Your task to perform on an android device: Open maps Image 0: 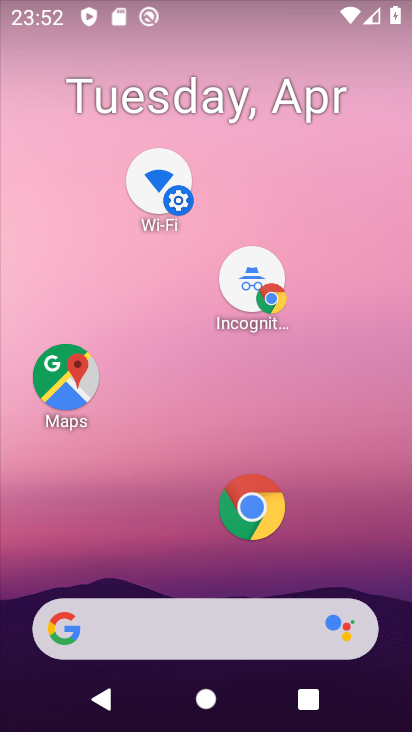
Step 0: click (57, 375)
Your task to perform on an android device: Open maps Image 1: 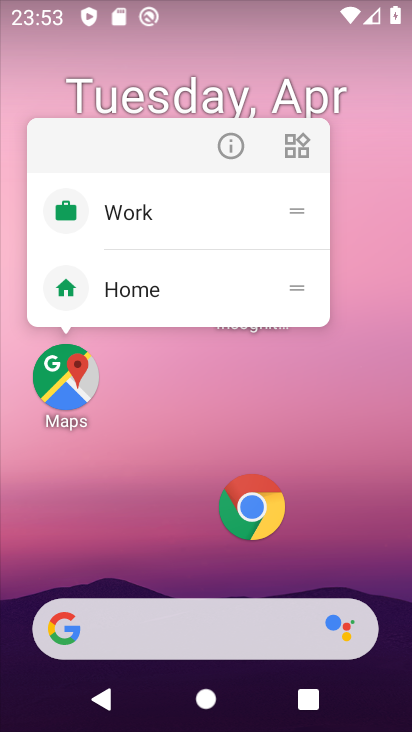
Step 1: click (66, 377)
Your task to perform on an android device: Open maps Image 2: 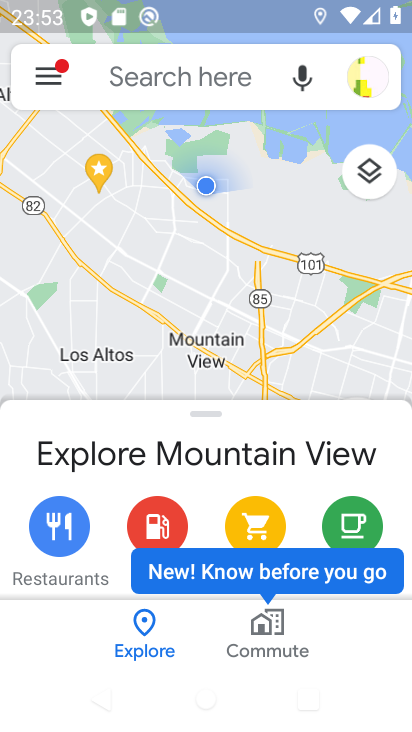
Step 2: task complete